Your task to perform on an android device: Check the news Image 0: 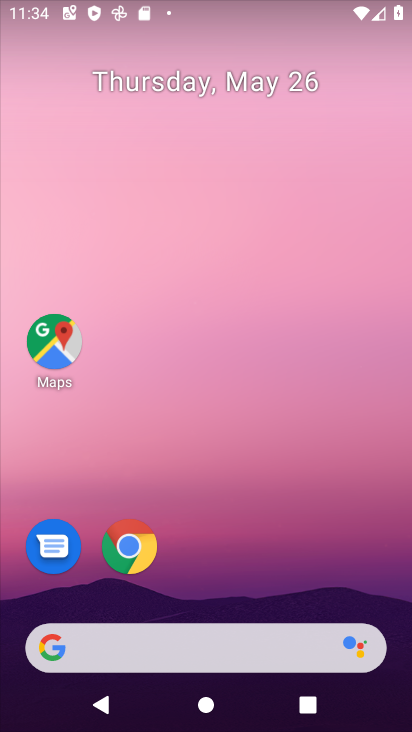
Step 0: drag from (203, 557) to (278, 27)
Your task to perform on an android device: Check the news Image 1: 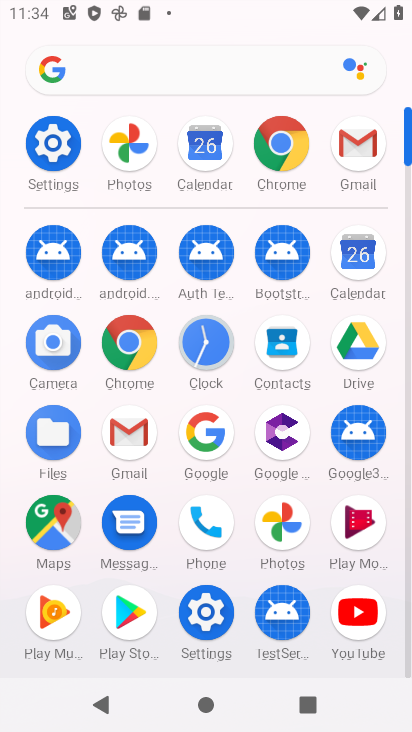
Step 1: click (212, 427)
Your task to perform on an android device: Check the news Image 2: 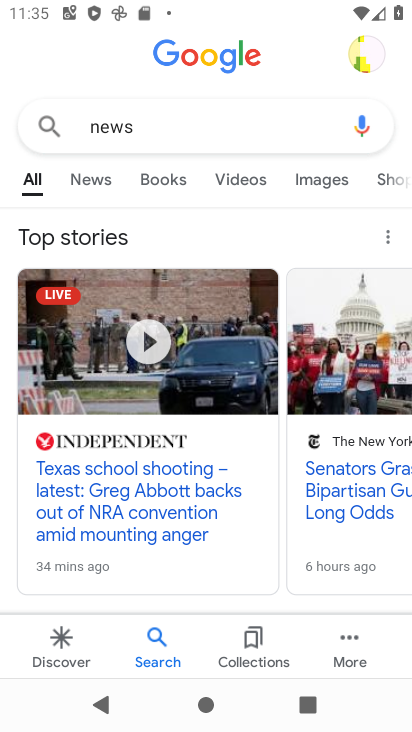
Step 2: task complete